Your task to perform on an android device: Show me popular videos on Youtube Image 0: 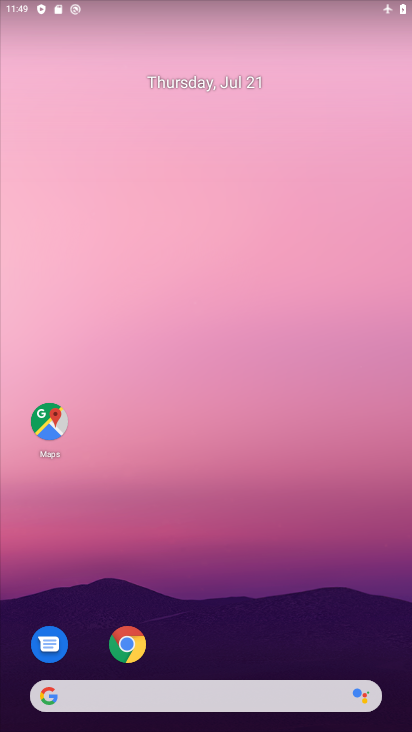
Step 0: drag from (206, 604) to (222, 154)
Your task to perform on an android device: Show me popular videos on Youtube Image 1: 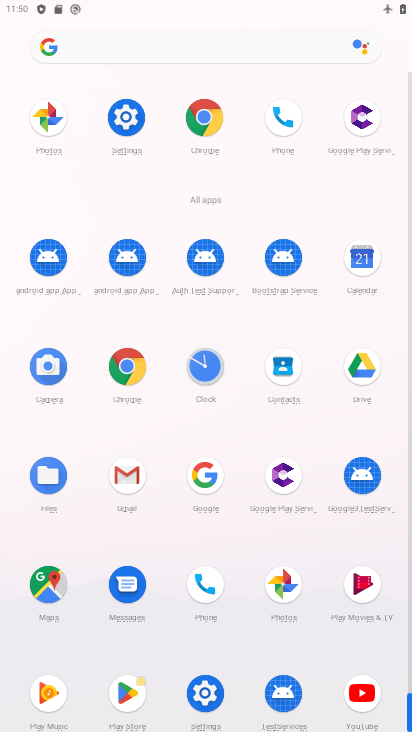
Step 1: click (344, 700)
Your task to perform on an android device: Show me popular videos on Youtube Image 2: 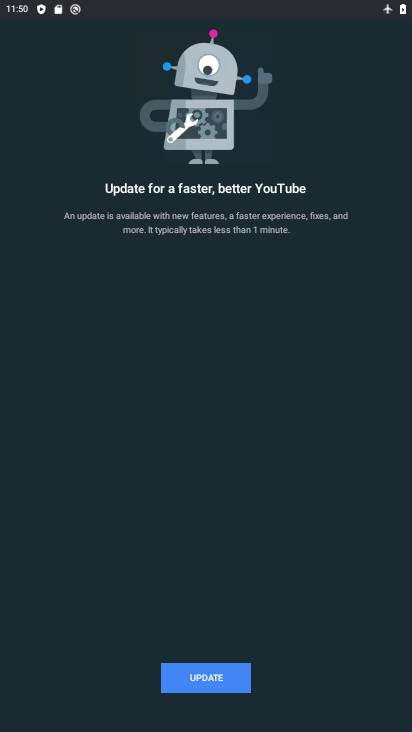
Step 2: click (218, 686)
Your task to perform on an android device: Show me popular videos on Youtube Image 3: 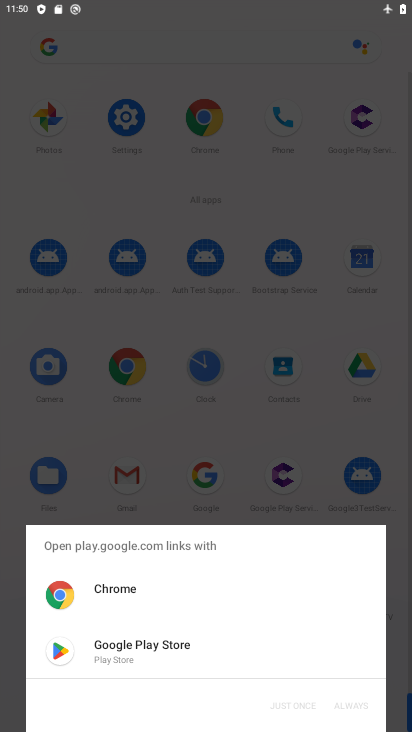
Step 3: click (202, 640)
Your task to perform on an android device: Show me popular videos on Youtube Image 4: 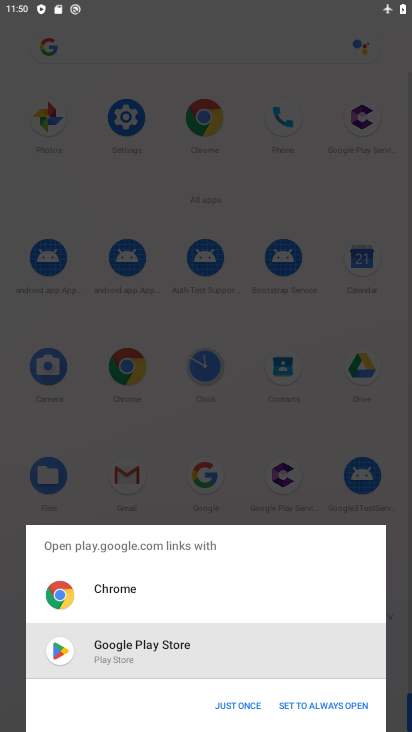
Step 4: click (238, 706)
Your task to perform on an android device: Show me popular videos on Youtube Image 5: 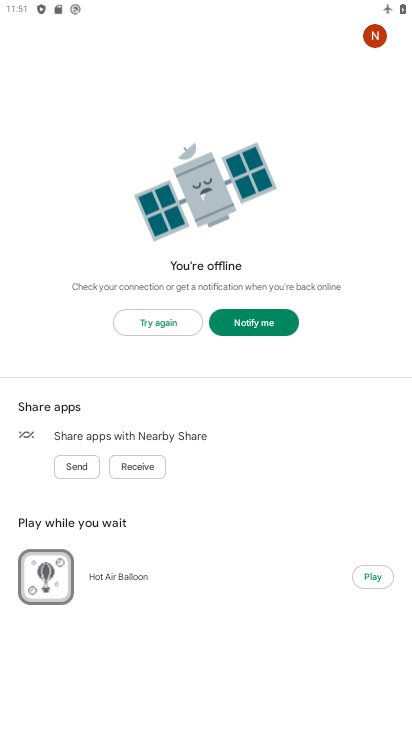
Step 5: task complete